Your task to perform on an android device: see tabs open on other devices in the chrome app Image 0: 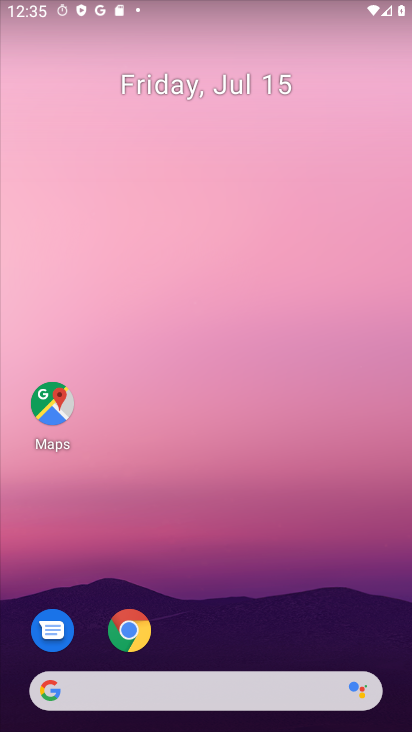
Step 0: drag from (171, 634) to (300, 201)
Your task to perform on an android device: see tabs open on other devices in the chrome app Image 1: 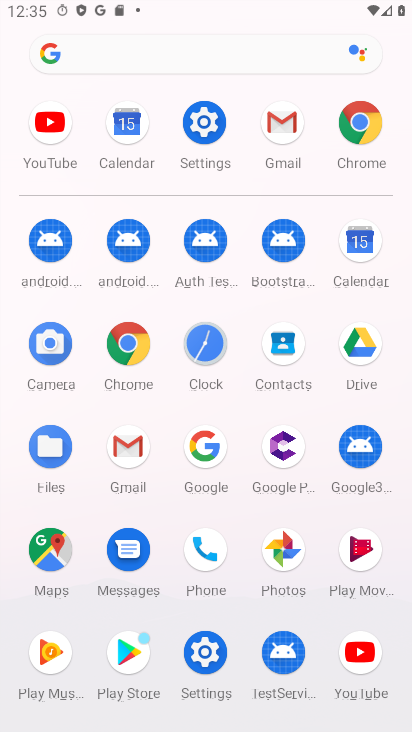
Step 1: click (125, 332)
Your task to perform on an android device: see tabs open on other devices in the chrome app Image 2: 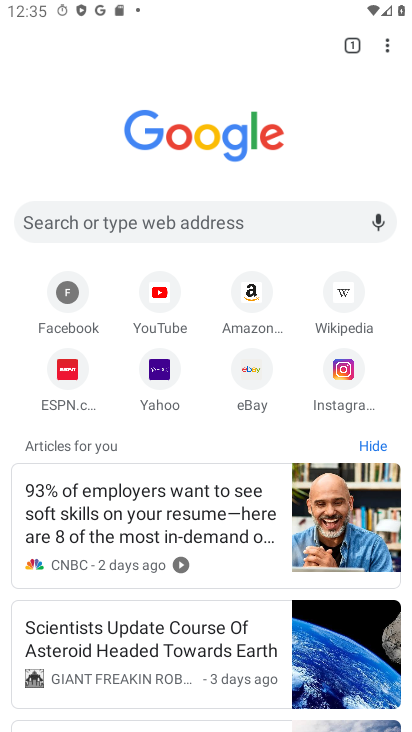
Step 2: click (384, 55)
Your task to perform on an android device: see tabs open on other devices in the chrome app Image 3: 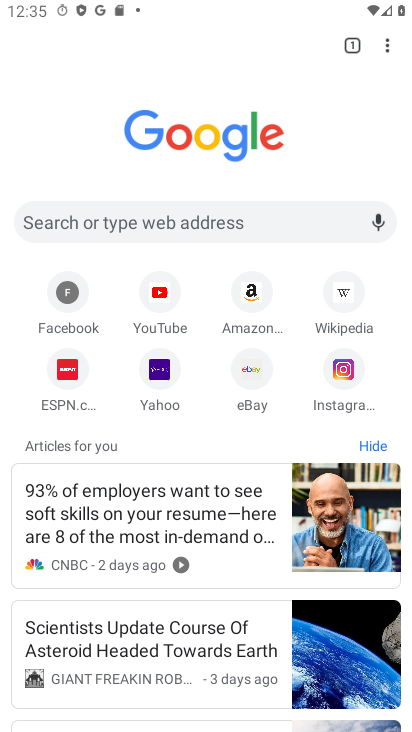
Step 3: task complete